Your task to perform on an android device: set the stopwatch Image 0: 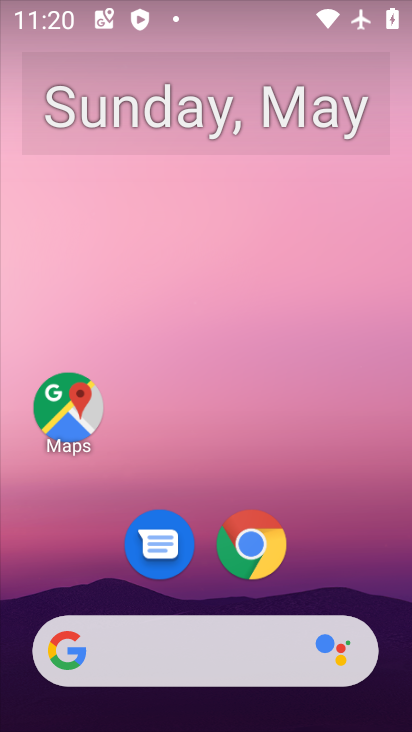
Step 0: drag from (341, 553) to (331, 252)
Your task to perform on an android device: set the stopwatch Image 1: 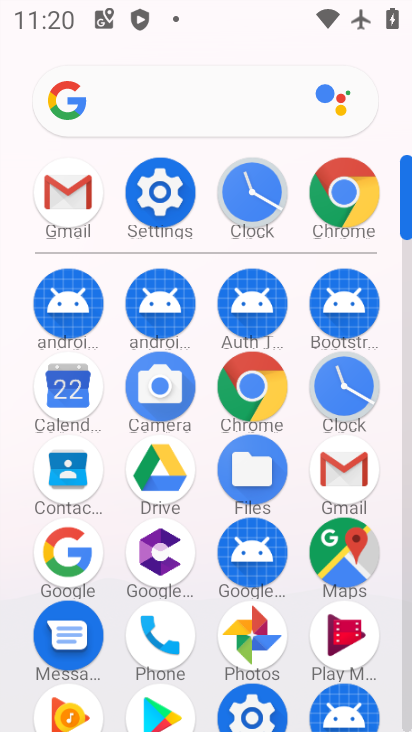
Step 1: click (348, 372)
Your task to perform on an android device: set the stopwatch Image 2: 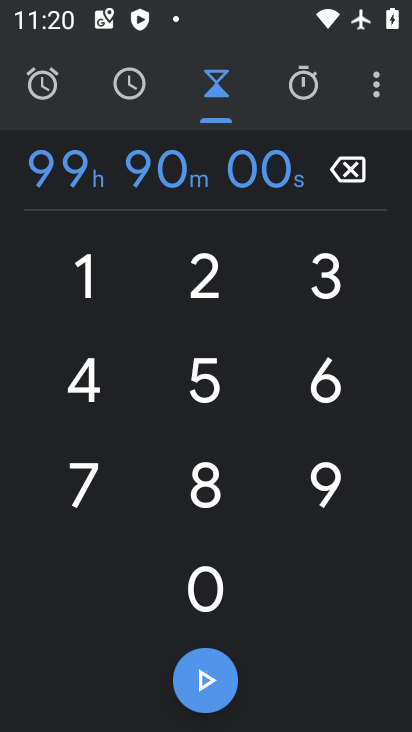
Step 2: click (211, 659)
Your task to perform on an android device: set the stopwatch Image 3: 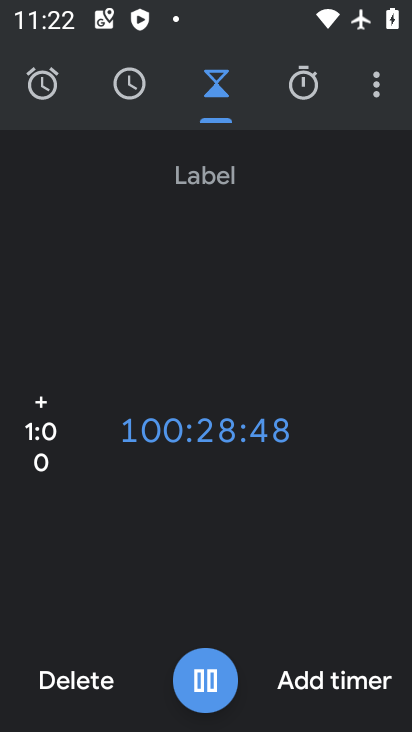
Step 3: task complete